Your task to perform on an android device: Open calendar and show me the first week of next month Image 0: 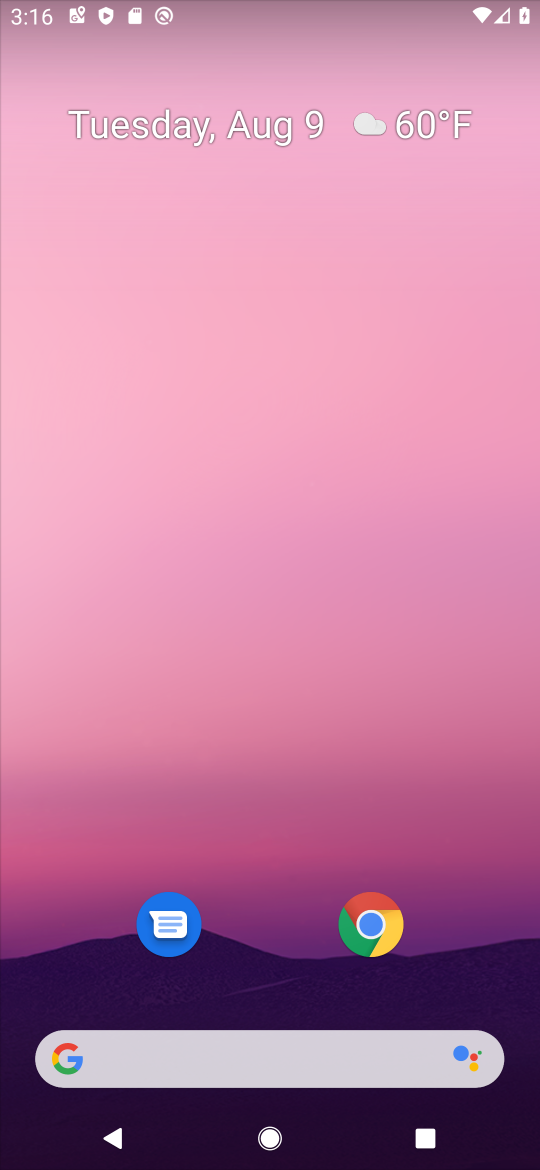
Step 0: drag from (277, 846) to (338, 42)
Your task to perform on an android device: Open calendar and show me the first week of next month Image 1: 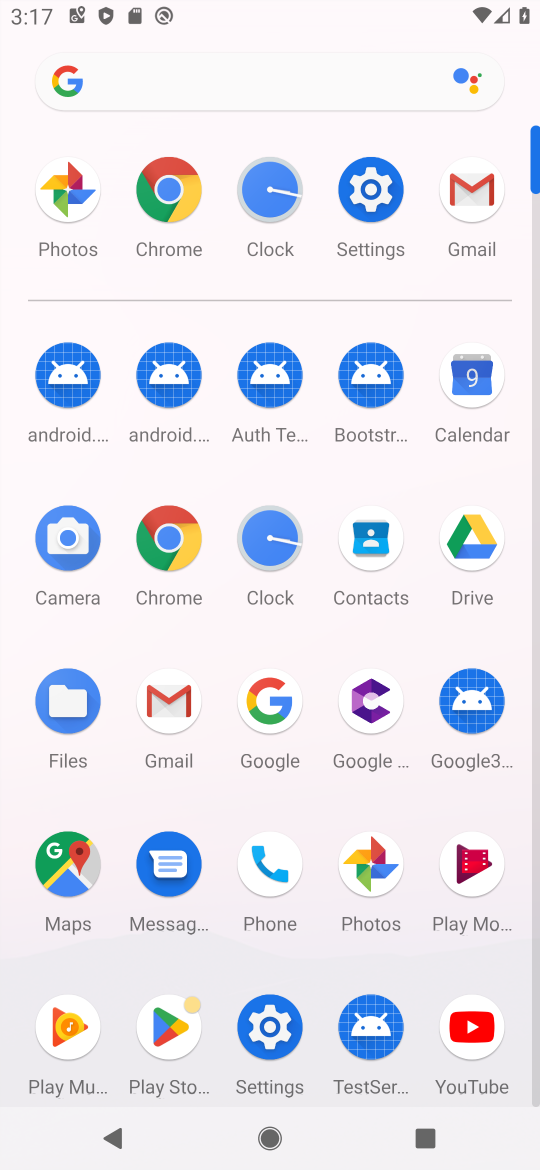
Step 1: click (474, 374)
Your task to perform on an android device: Open calendar and show me the first week of next month Image 2: 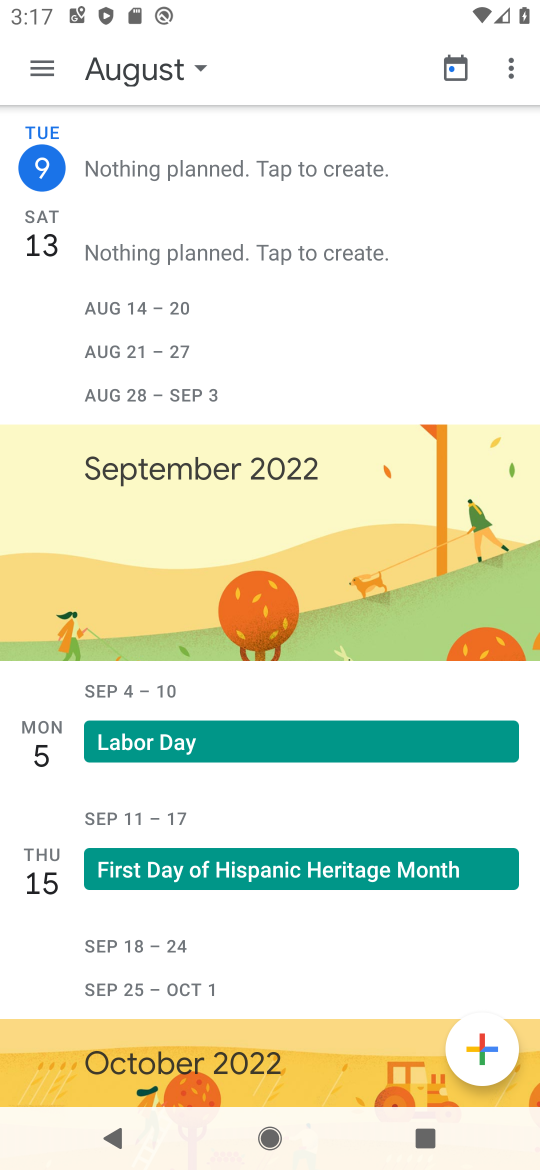
Step 2: click (45, 69)
Your task to perform on an android device: Open calendar and show me the first week of next month Image 3: 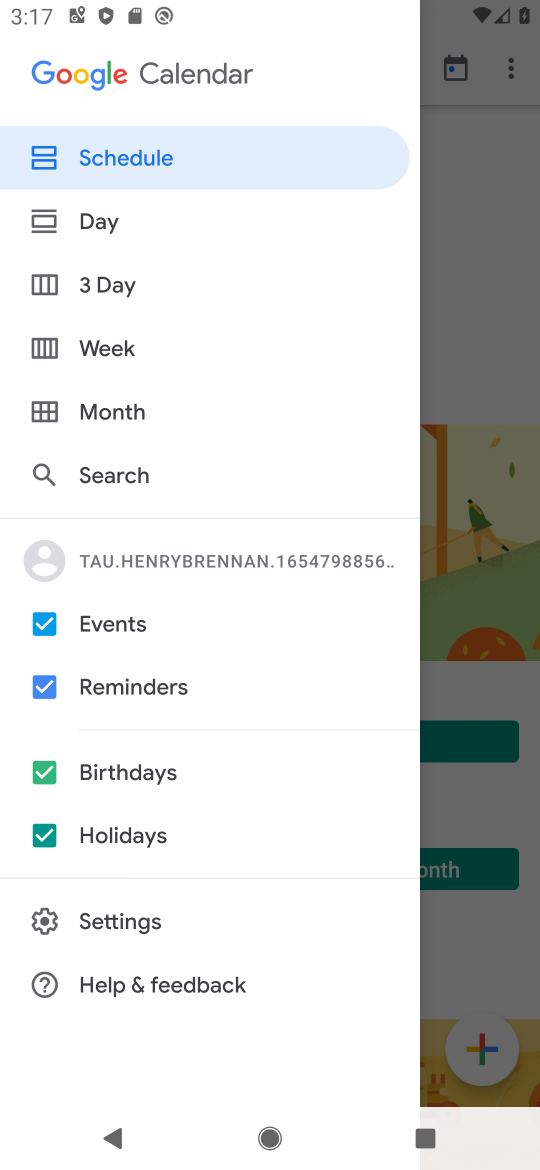
Step 3: click (41, 336)
Your task to perform on an android device: Open calendar and show me the first week of next month Image 4: 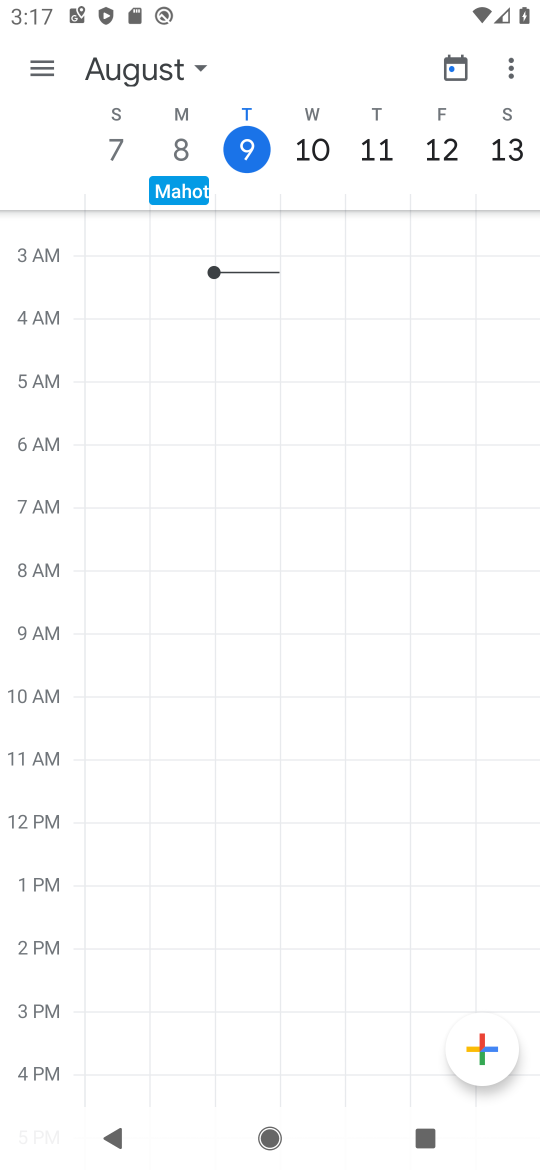
Step 4: task complete